Your task to perform on an android device: Open the calendar app, open the side menu, and click the "Day" option Image 0: 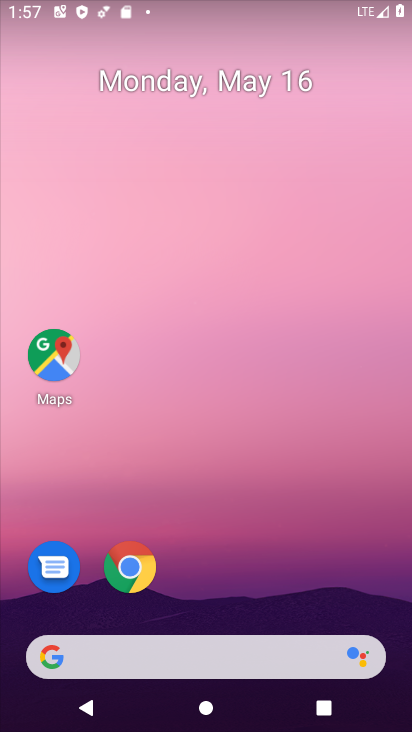
Step 0: drag from (282, 609) to (223, 273)
Your task to perform on an android device: Open the calendar app, open the side menu, and click the "Day" option Image 1: 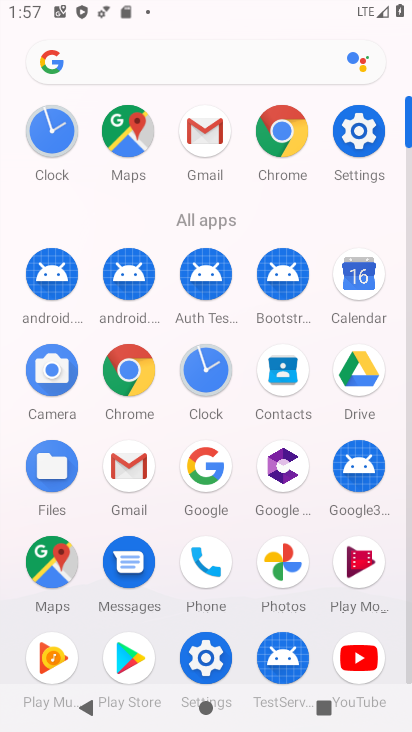
Step 1: click (357, 288)
Your task to perform on an android device: Open the calendar app, open the side menu, and click the "Day" option Image 2: 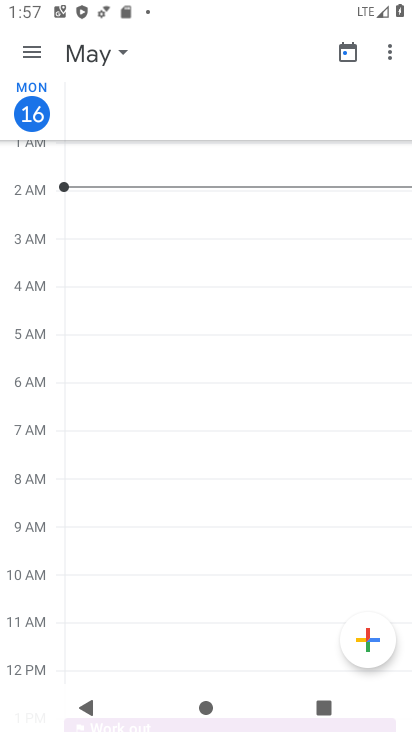
Step 2: click (32, 51)
Your task to perform on an android device: Open the calendar app, open the side menu, and click the "Day" option Image 3: 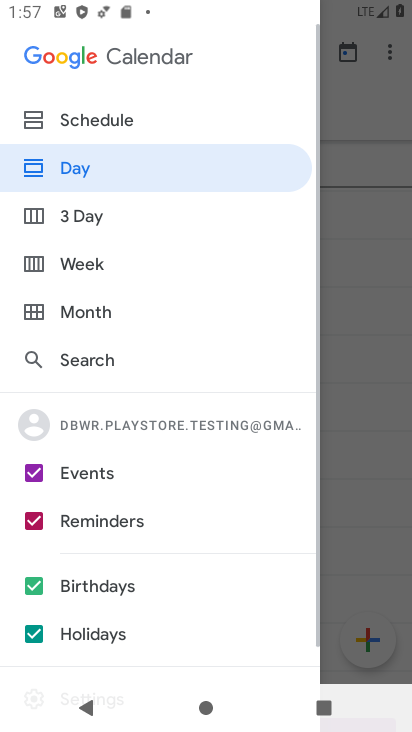
Step 3: click (105, 172)
Your task to perform on an android device: Open the calendar app, open the side menu, and click the "Day" option Image 4: 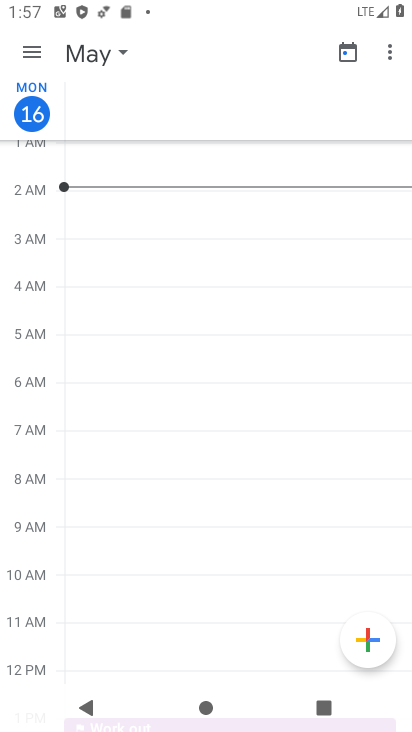
Step 4: task complete